Your task to perform on an android device: turn on data saver in the chrome app Image 0: 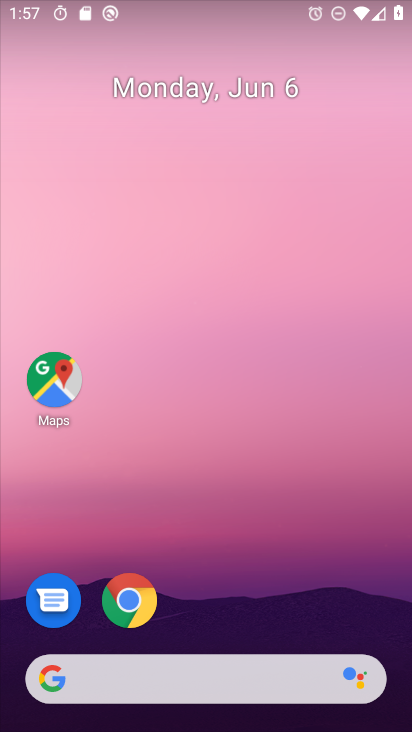
Step 0: click (144, 610)
Your task to perform on an android device: turn on data saver in the chrome app Image 1: 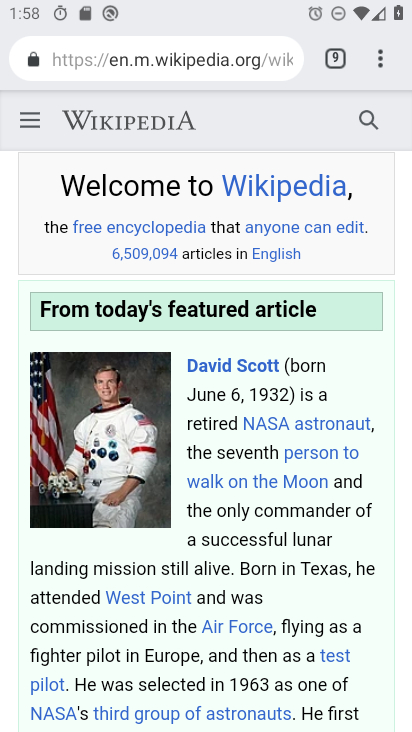
Step 1: drag from (376, 70) to (184, 635)
Your task to perform on an android device: turn on data saver in the chrome app Image 2: 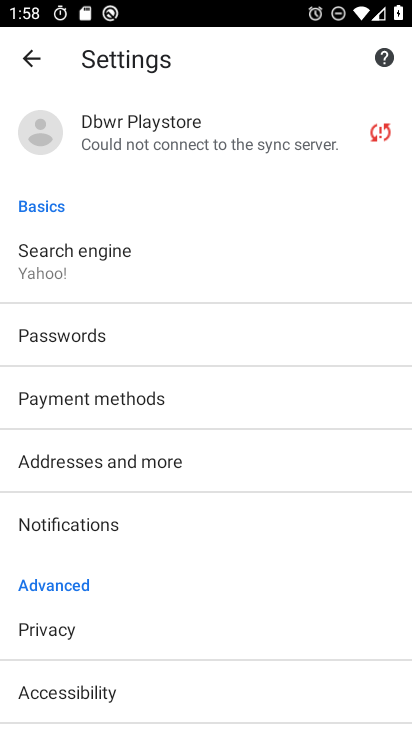
Step 2: drag from (196, 608) to (222, 372)
Your task to perform on an android device: turn on data saver in the chrome app Image 3: 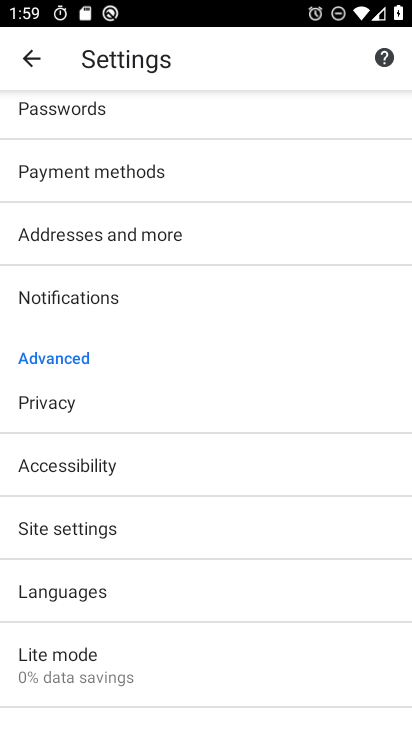
Step 3: drag from (159, 607) to (174, 441)
Your task to perform on an android device: turn on data saver in the chrome app Image 4: 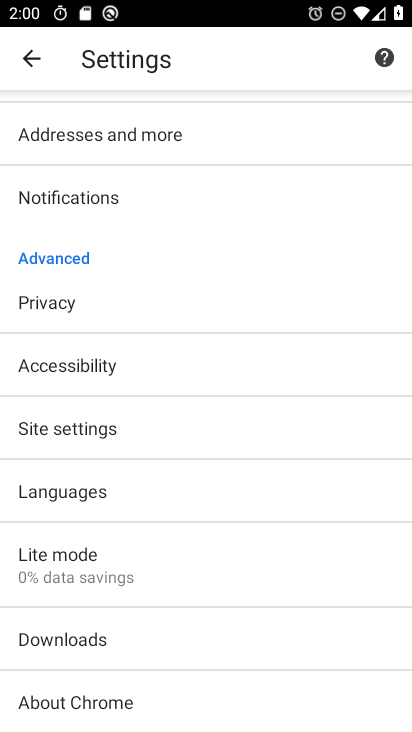
Step 4: click (135, 574)
Your task to perform on an android device: turn on data saver in the chrome app Image 5: 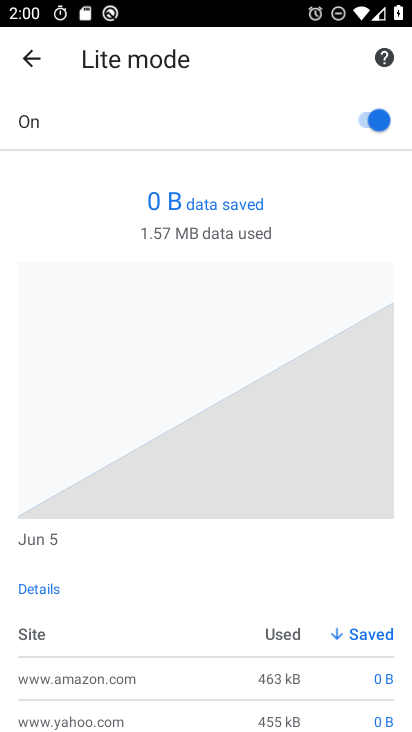
Step 5: task complete